Your task to perform on an android device: move an email to a new category in the gmail app Image 0: 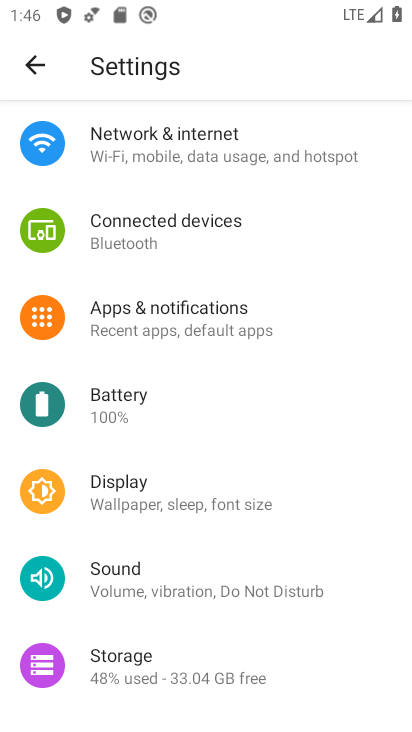
Step 0: press home button
Your task to perform on an android device: move an email to a new category in the gmail app Image 1: 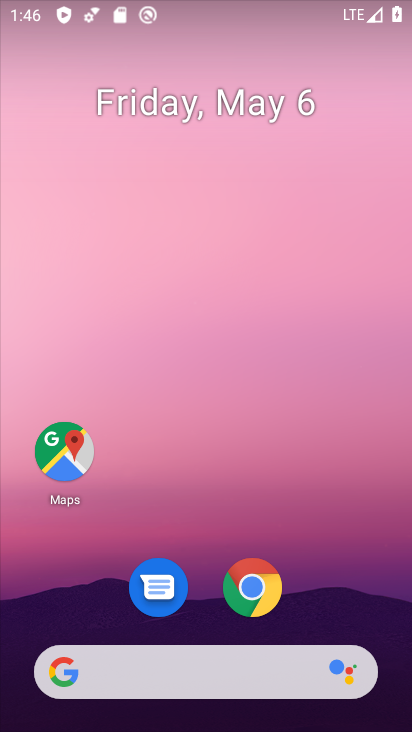
Step 1: drag from (325, 632) to (301, 149)
Your task to perform on an android device: move an email to a new category in the gmail app Image 2: 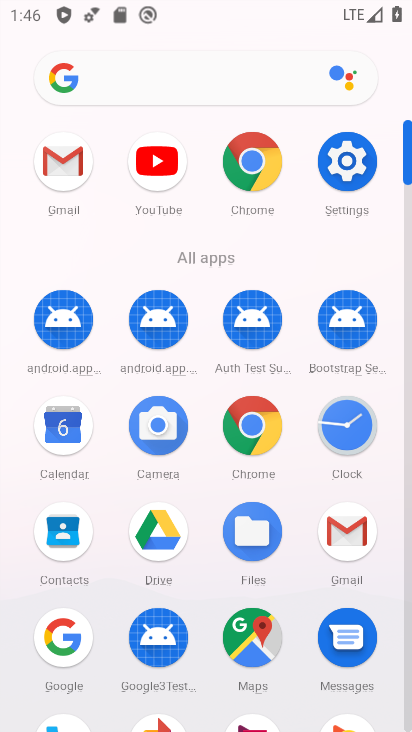
Step 2: click (355, 532)
Your task to perform on an android device: move an email to a new category in the gmail app Image 3: 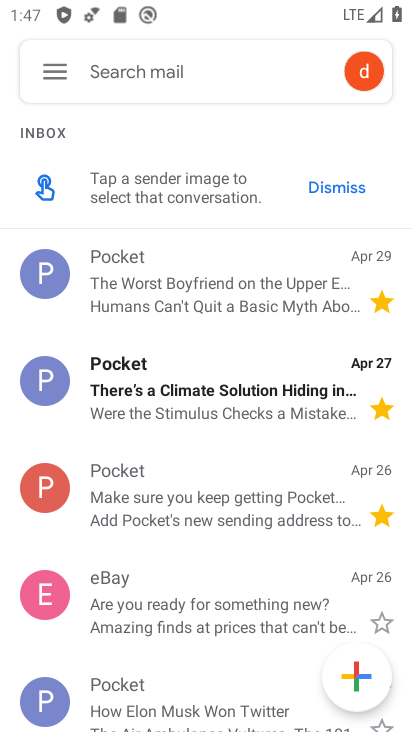
Step 3: click (153, 279)
Your task to perform on an android device: move an email to a new category in the gmail app Image 4: 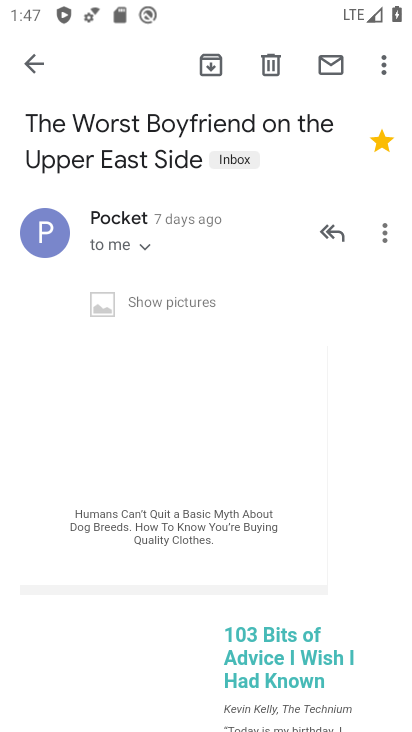
Step 4: click (379, 64)
Your task to perform on an android device: move an email to a new category in the gmail app Image 5: 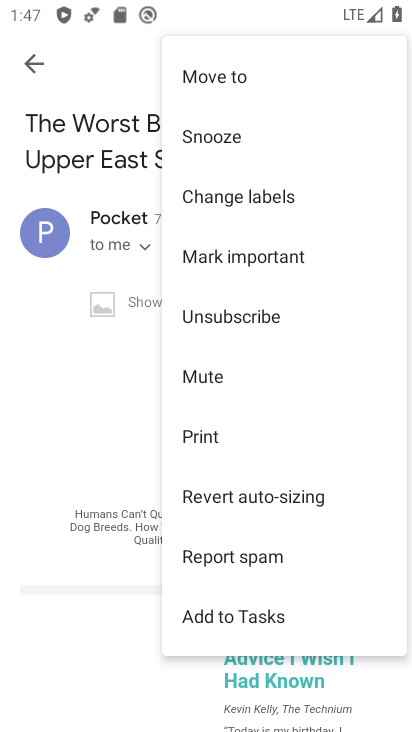
Step 5: click (89, 429)
Your task to perform on an android device: move an email to a new category in the gmail app Image 6: 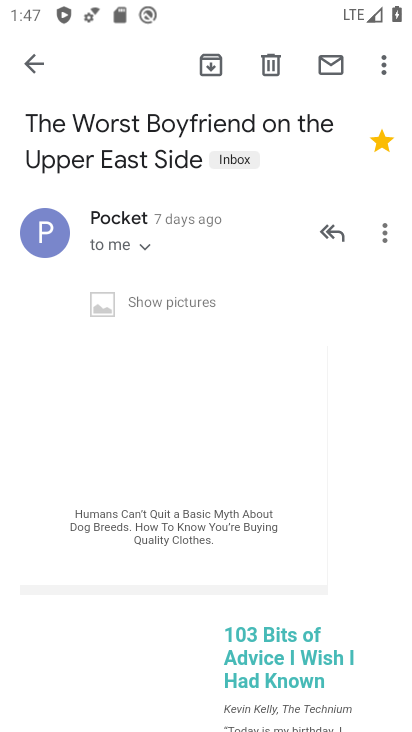
Step 6: click (382, 223)
Your task to perform on an android device: move an email to a new category in the gmail app Image 7: 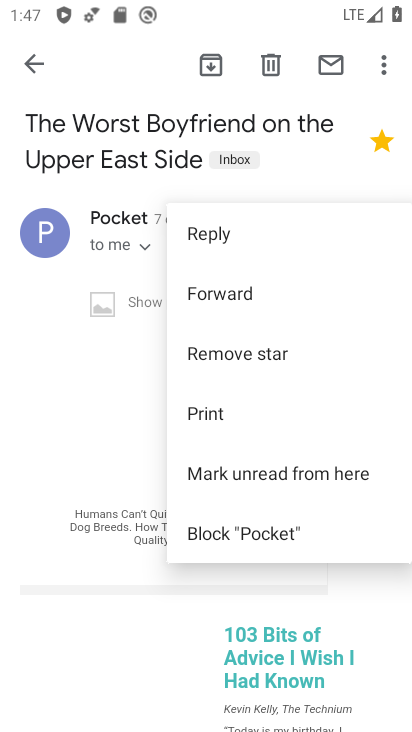
Step 7: click (230, 354)
Your task to perform on an android device: move an email to a new category in the gmail app Image 8: 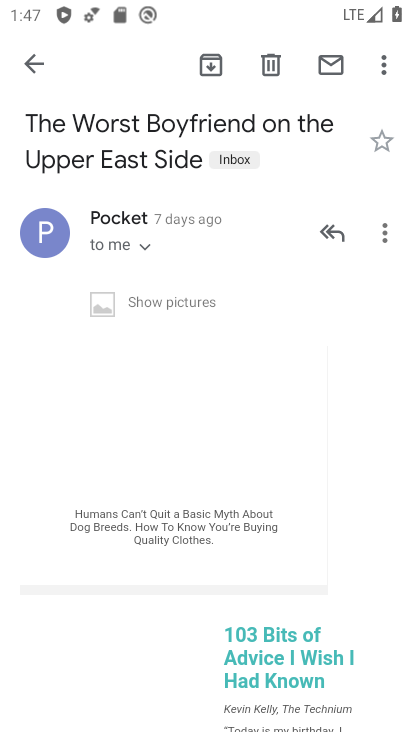
Step 8: task complete